Your task to perform on an android device: Open Youtube and go to the subscriptions tab Image 0: 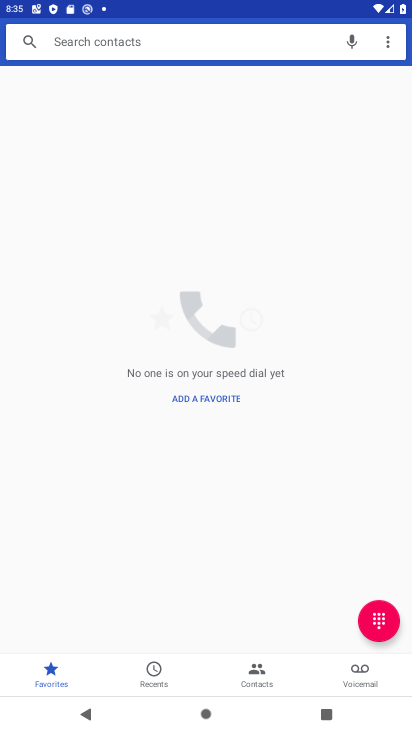
Step 0: press back button
Your task to perform on an android device: Open Youtube and go to the subscriptions tab Image 1: 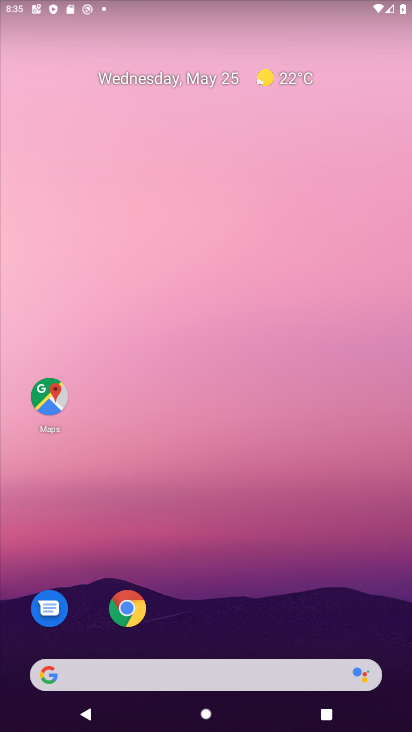
Step 1: drag from (252, 602) to (392, 393)
Your task to perform on an android device: Open Youtube and go to the subscriptions tab Image 2: 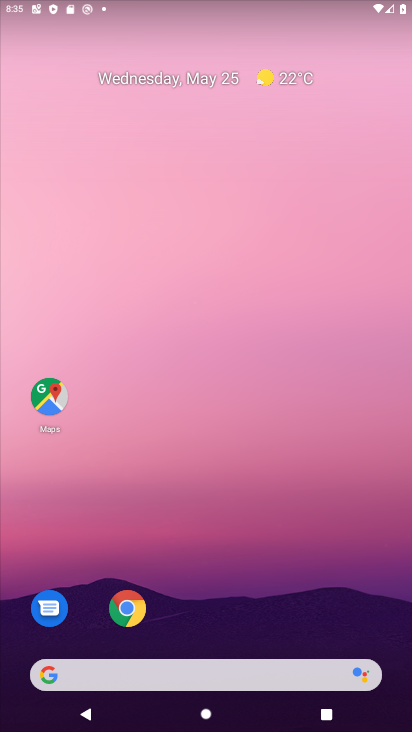
Step 2: drag from (259, 614) to (222, 0)
Your task to perform on an android device: Open Youtube and go to the subscriptions tab Image 3: 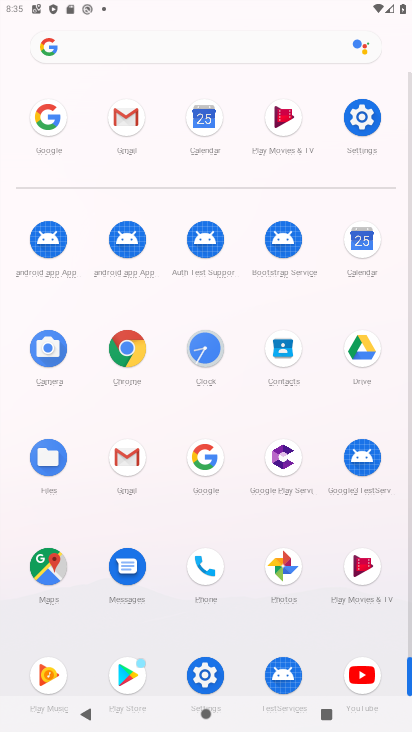
Step 3: drag from (240, 470) to (251, 234)
Your task to perform on an android device: Open Youtube and go to the subscriptions tab Image 4: 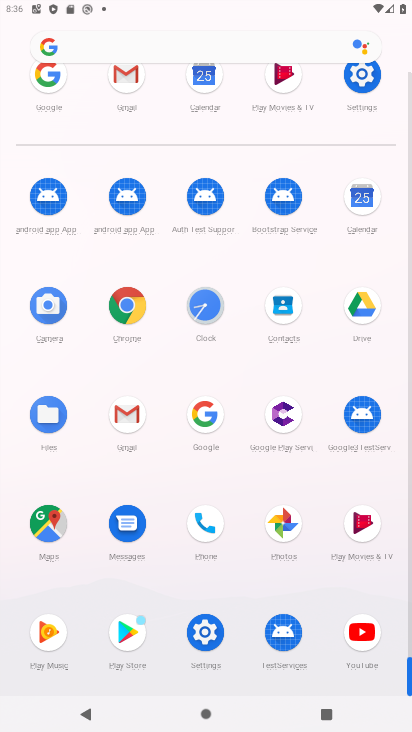
Step 4: click (361, 631)
Your task to perform on an android device: Open Youtube and go to the subscriptions tab Image 5: 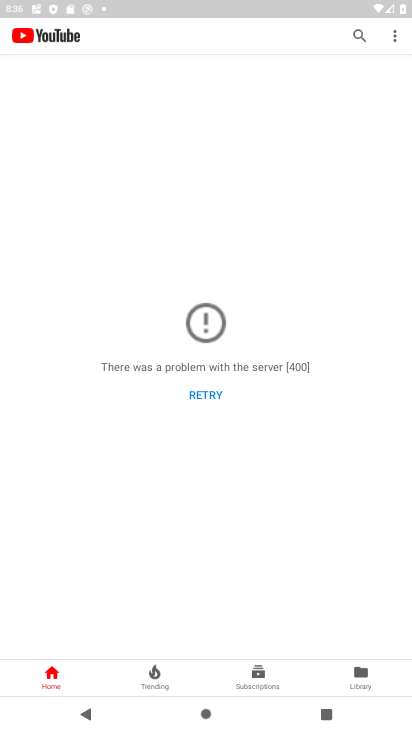
Step 5: click (204, 393)
Your task to perform on an android device: Open Youtube and go to the subscriptions tab Image 6: 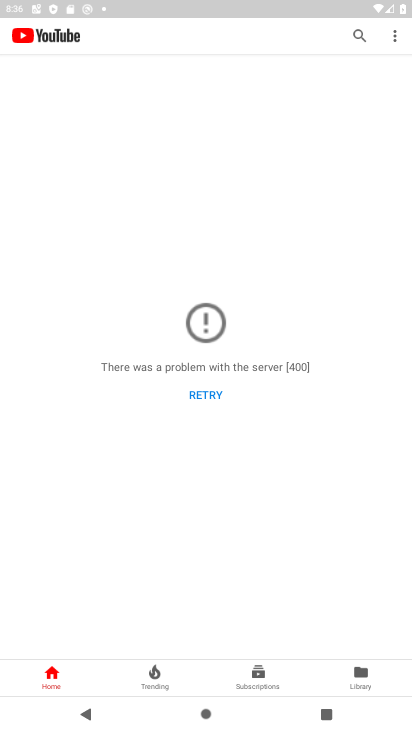
Step 6: click (204, 393)
Your task to perform on an android device: Open Youtube and go to the subscriptions tab Image 7: 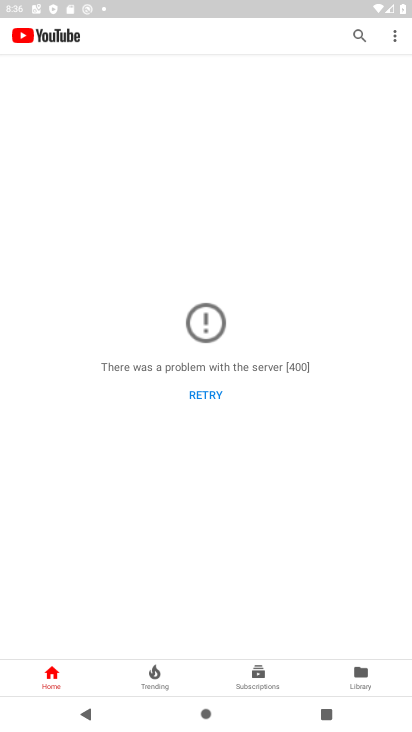
Step 7: click (213, 384)
Your task to perform on an android device: Open Youtube and go to the subscriptions tab Image 8: 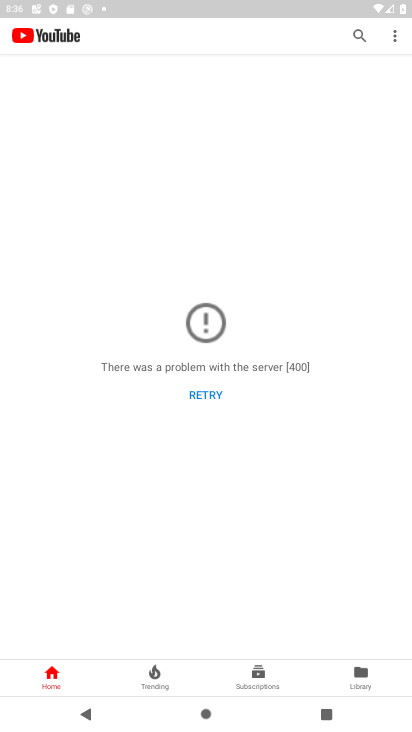
Step 8: click (207, 393)
Your task to perform on an android device: Open Youtube and go to the subscriptions tab Image 9: 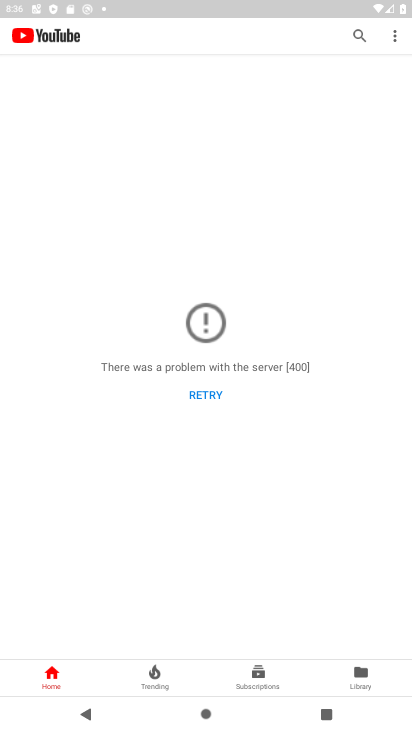
Step 9: click (207, 393)
Your task to perform on an android device: Open Youtube and go to the subscriptions tab Image 10: 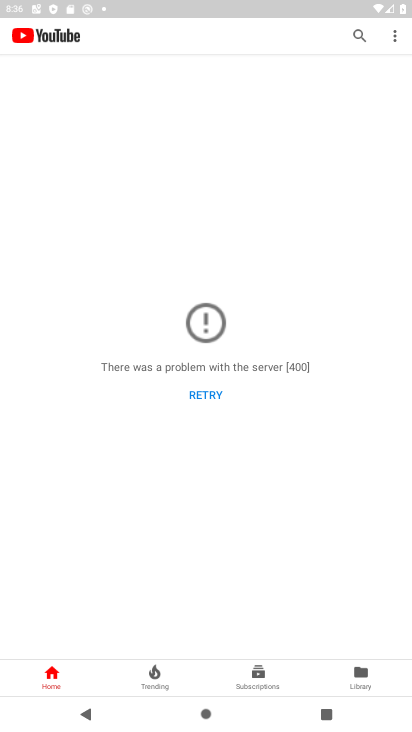
Step 10: click (259, 675)
Your task to perform on an android device: Open Youtube and go to the subscriptions tab Image 11: 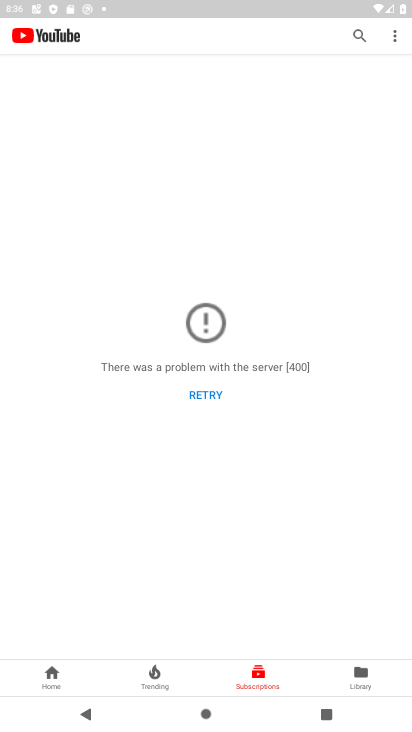
Step 11: task complete